Your task to perform on an android device: Go to Wikipedia Image 0: 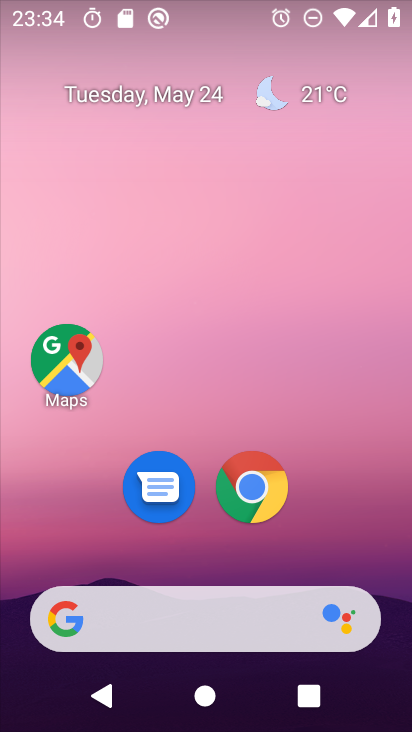
Step 0: click (256, 493)
Your task to perform on an android device: Go to Wikipedia Image 1: 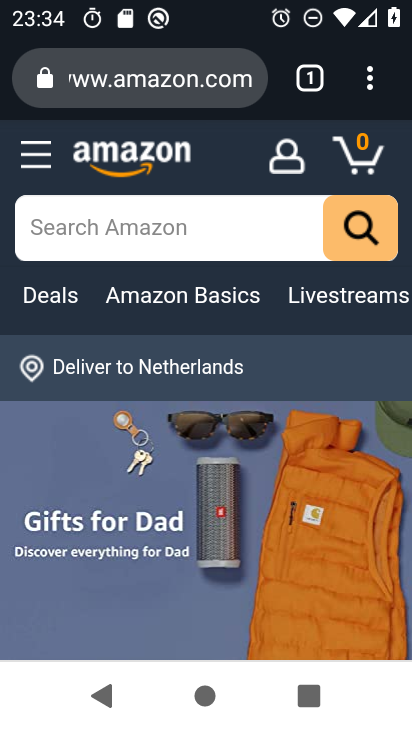
Step 1: click (120, 71)
Your task to perform on an android device: Go to Wikipedia Image 2: 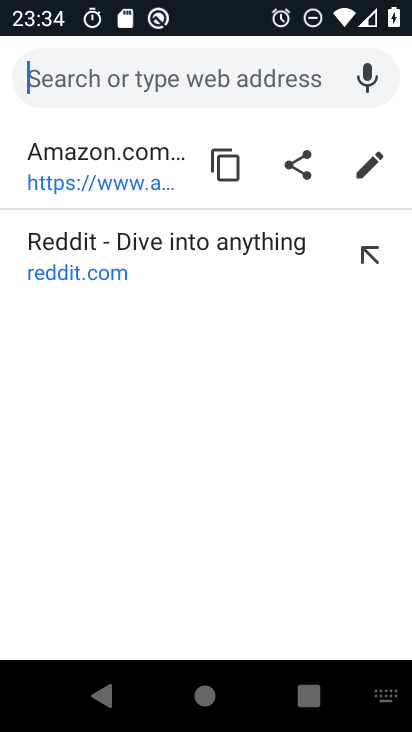
Step 2: type "wikipedia"
Your task to perform on an android device: Go to Wikipedia Image 3: 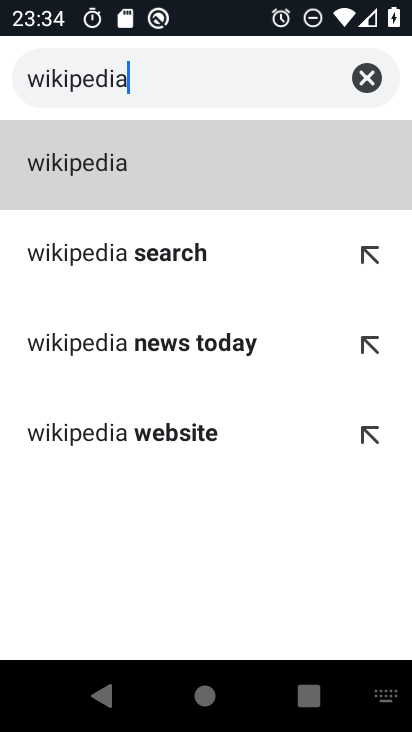
Step 3: click (54, 171)
Your task to perform on an android device: Go to Wikipedia Image 4: 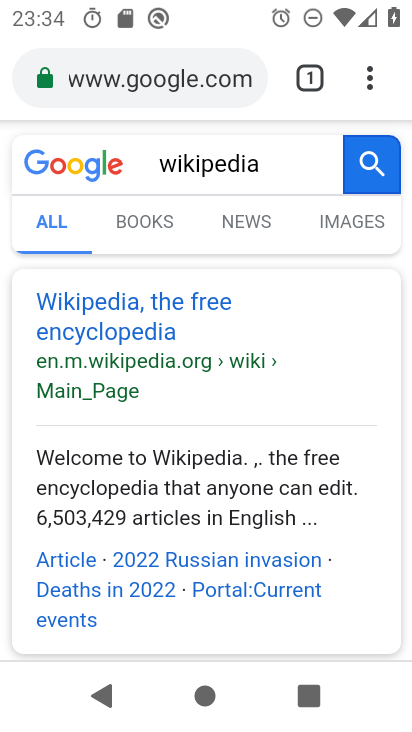
Step 4: drag from (161, 543) to (158, 239)
Your task to perform on an android device: Go to Wikipedia Image 5: 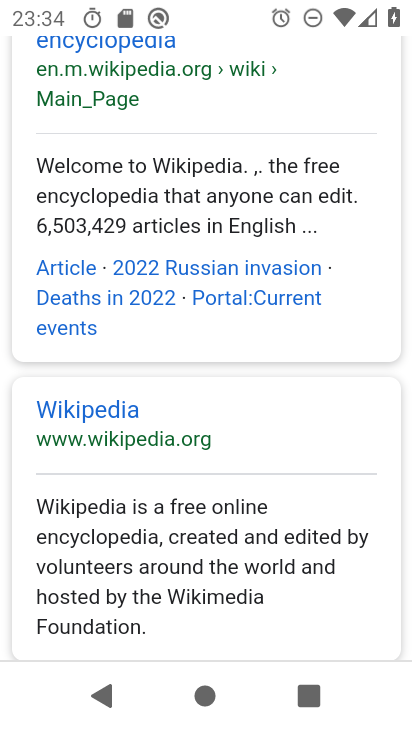
Step 5: click (117, 431)
Your task to perform on an android device: Go to Wikipedia Image 6: 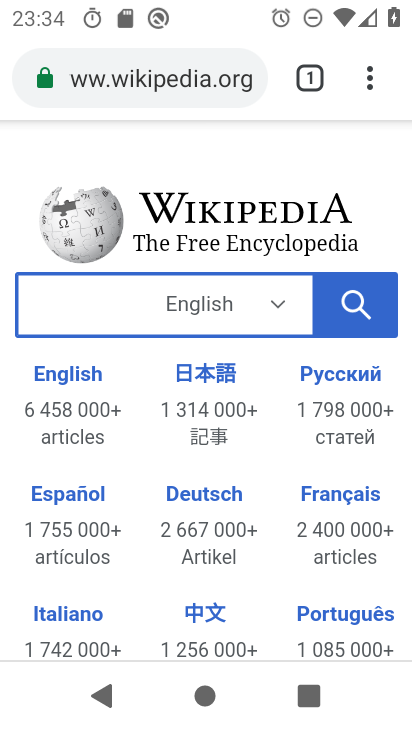
Step 6: task complete